Your task to perform on an android device: When is my next meeting? Image 0: 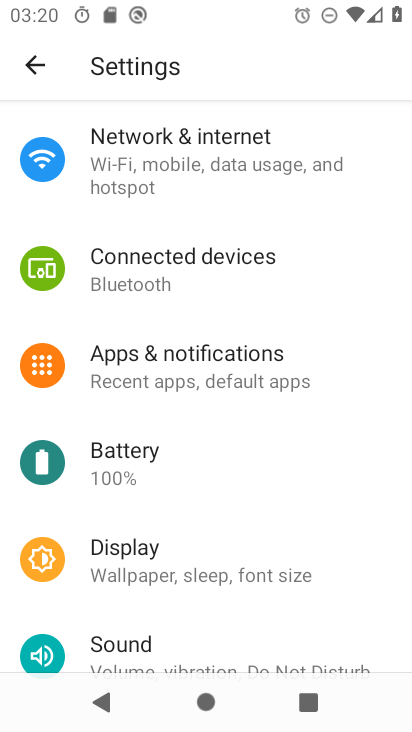
Step 0: press home button
Your task to perform on an android device: When is my next meeting? Image 1: 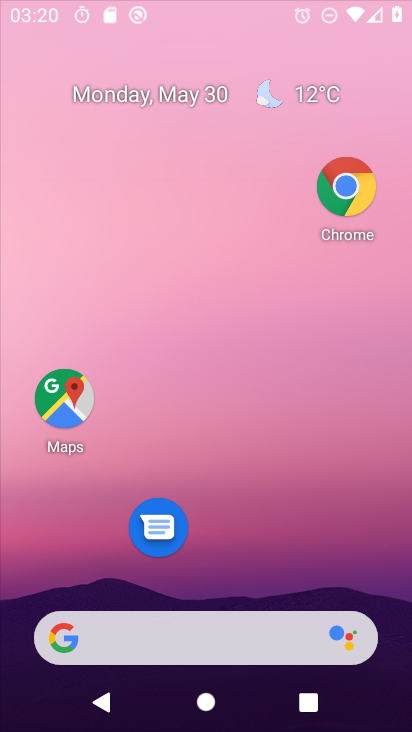
Step 1: drag from (295, 555) to (294, 173)
Your task to perform on an android device: When is my next meeting? Image 2: 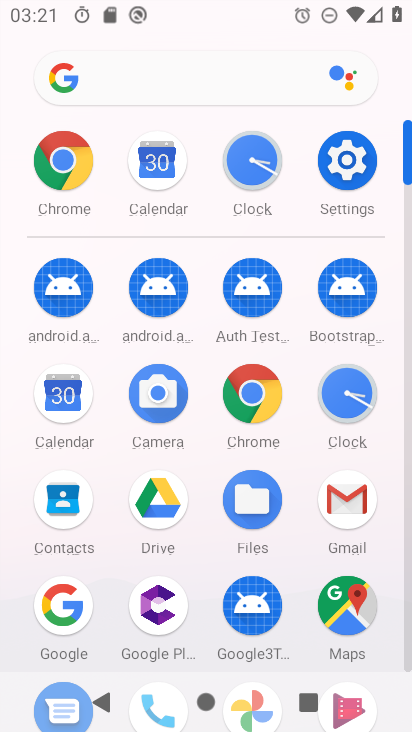
Step 2: click (56, 389)
Your task to perform on an android device: When is my next meeting? Image 3: 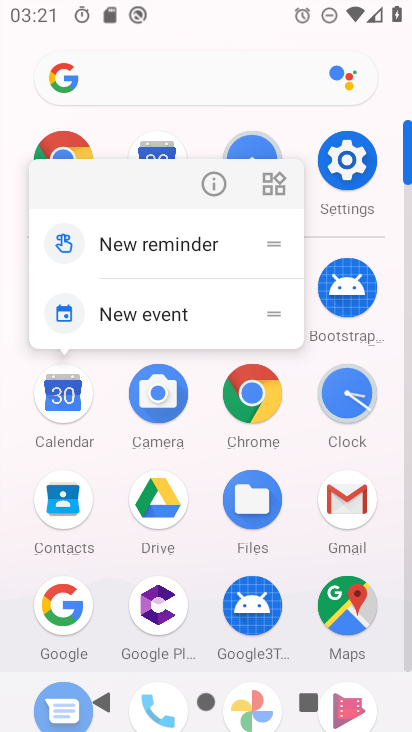
Step 3: click (226, 176)
Your task to perform on an android device: When is my next meeting? Image 4: 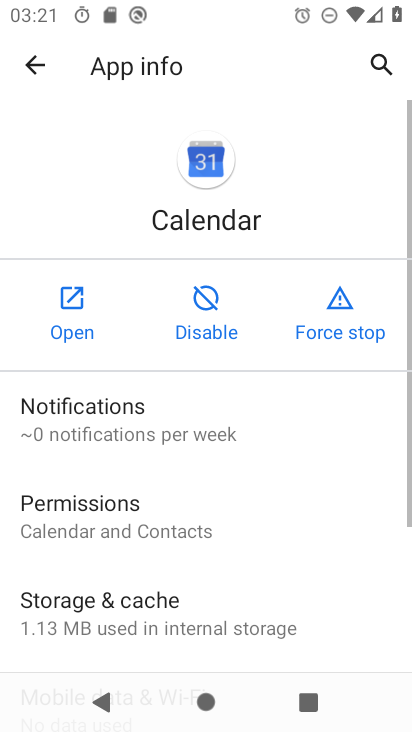
Step 4: click (67, 339)
Your task to perform on an android device: When is my next meeting? Image 5: 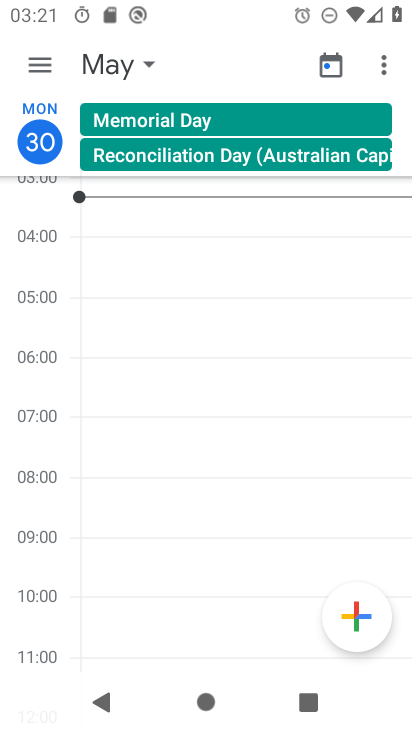
Step 5: drag from (187, 346) to (207, 729)
Your task to perform on an android device: When is my next meeting? Image 6: 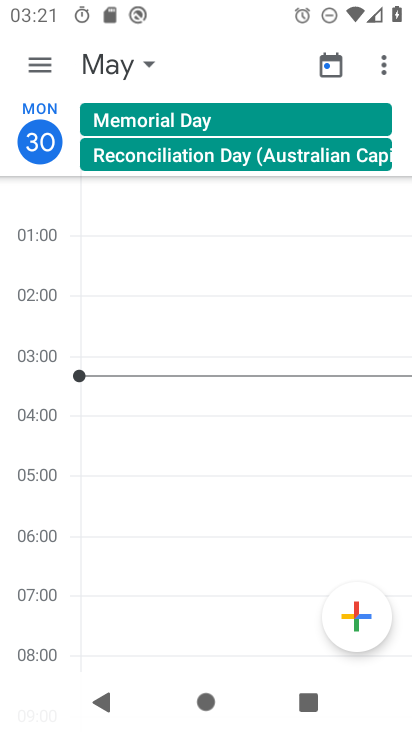
Step 6: click (140, 74)
Your task to perform on an android device: When is my next meeting? Image 7: 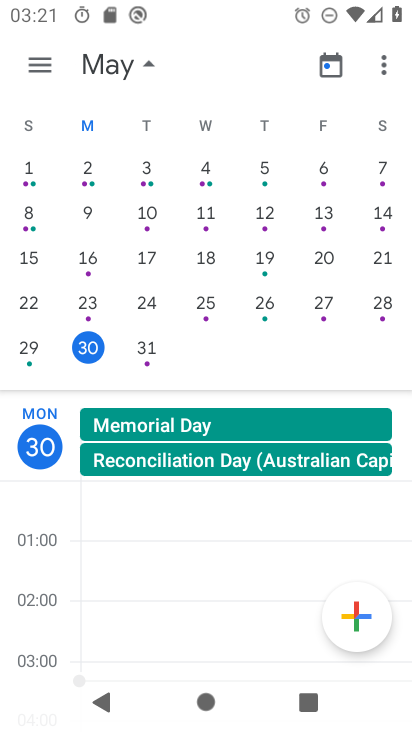
Step 7: click (81, 348)
Your task to perform on an android device: When is my next meeting? Image 8: 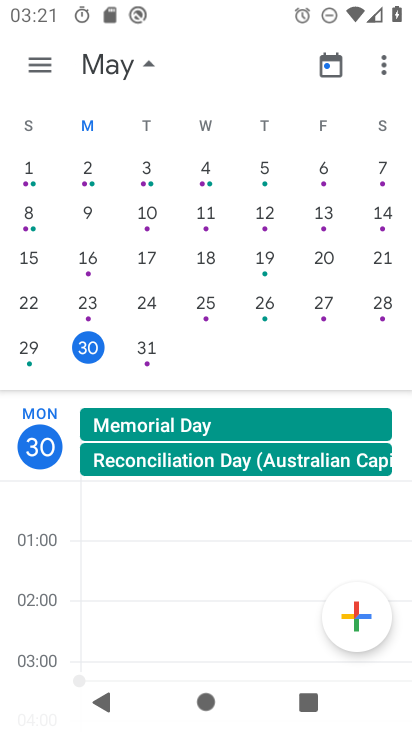
Step 8: task complete